Your task to perform on an android device: Open Android settings Image 0: 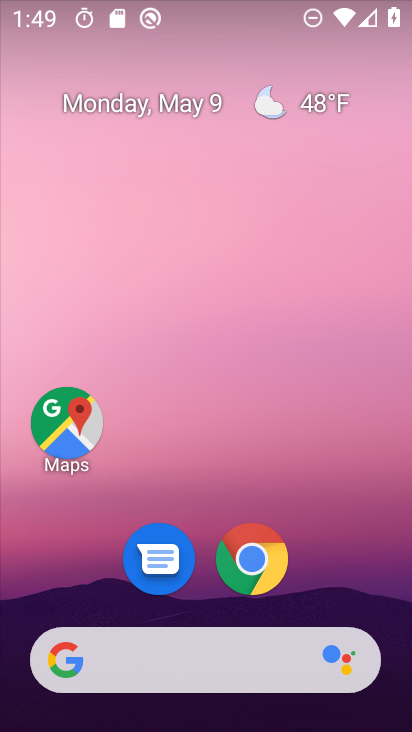
Step 0: drag from (194, 606) to (254, 261)
Your task to perform on an android device: Open Android settings Image 1: 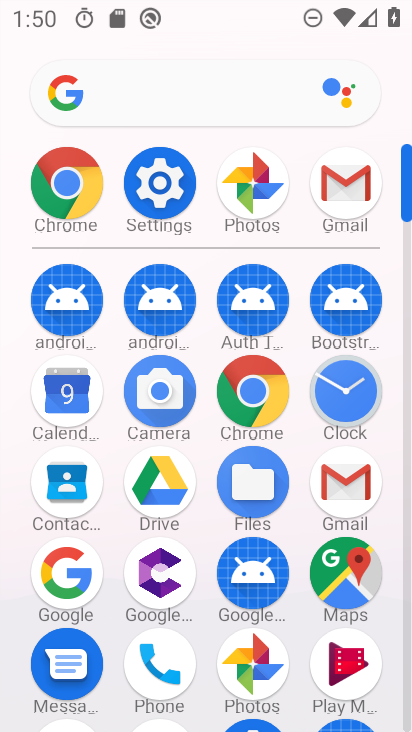
Step 1: drag from (204, 624) to (218, 326)
Your task to perform on an android device: Open Android settings Image 2: 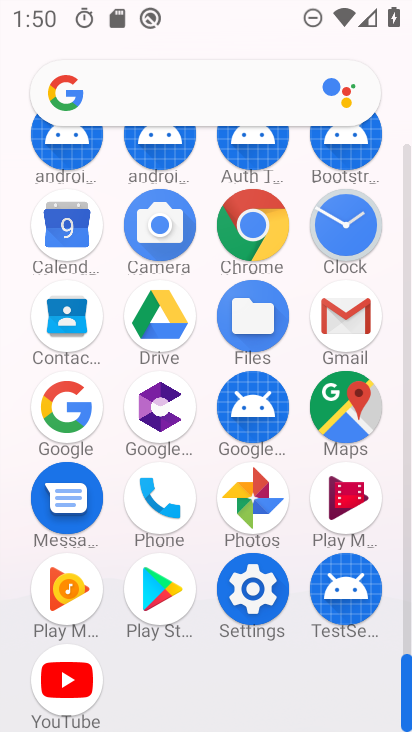
Step 2: click (252, 603)
Your task to perform on an android device: Open Android settings Image 3: 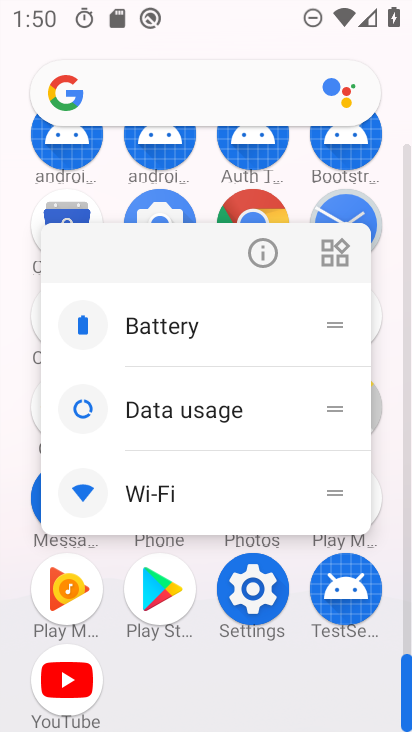
Step 3: click (252, 253)
Your task to perform on an android device: Open Android settings Image 4: 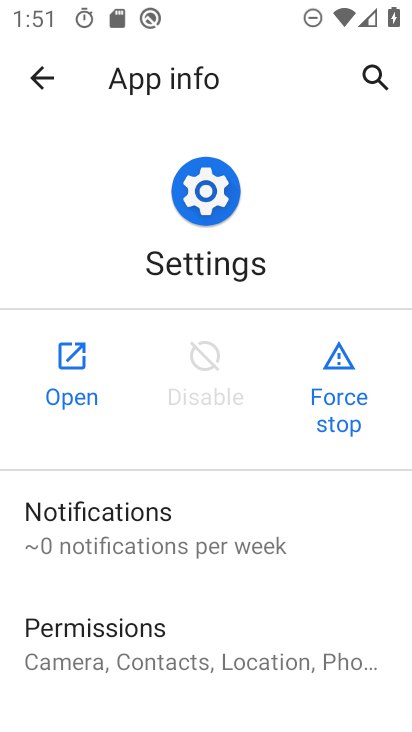
Step 4: click (90, 359)
Your task to perform on an android device: Open Android settings Image 5: 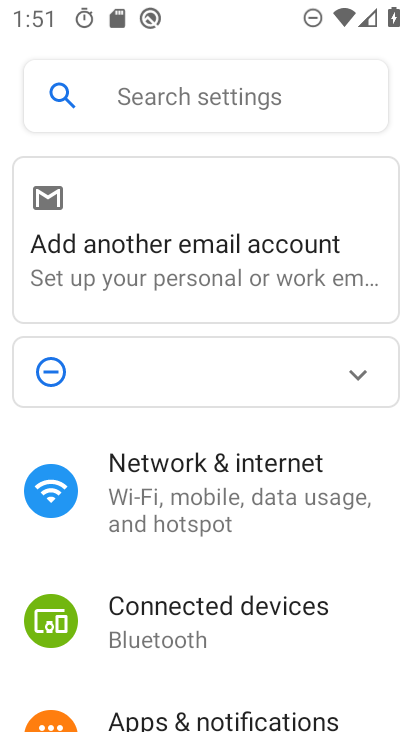
Step 5: drag from (212, 594) to (342, 121)
Your task to perform on an android device: Open Android settings Image 6: 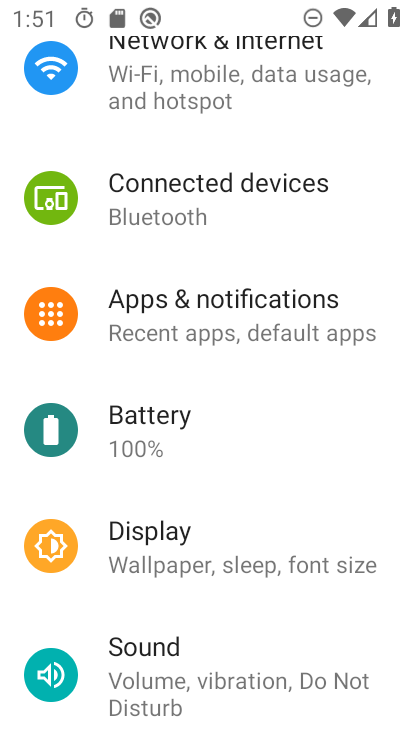
Step 6: drag from (231, 656) to (351, 163)
Your task to perform on an android device: Open Android settings Image 7: 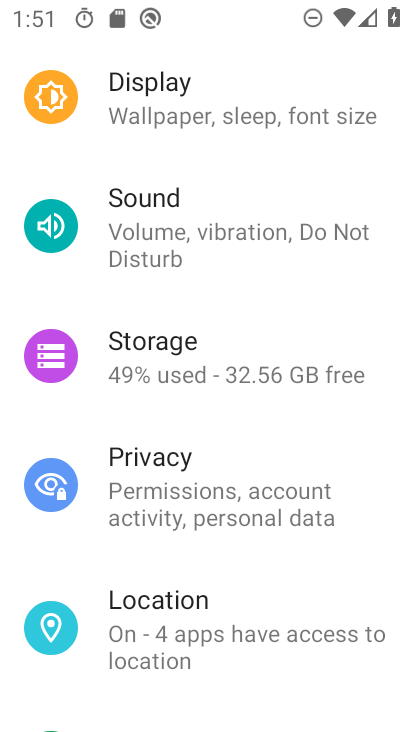
Step 7: drag from (220, 658) to (280, 23)
Your task to perform on an android device: Open Android settings Image 8: 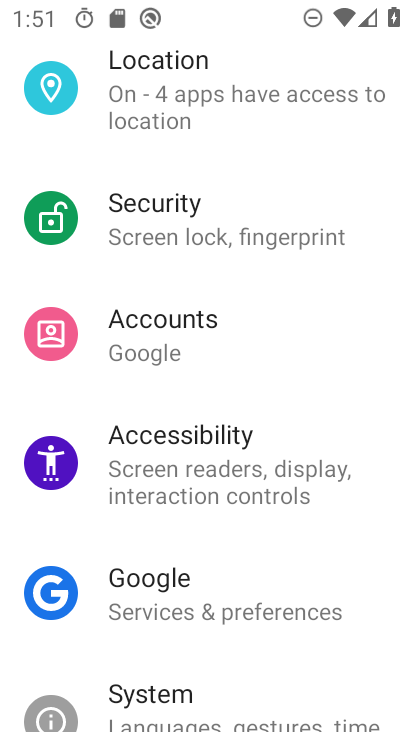
Step 8: drag from (219, 584) to (269, 176)
Your task to perform on an android device: Open Android settings Image 9: 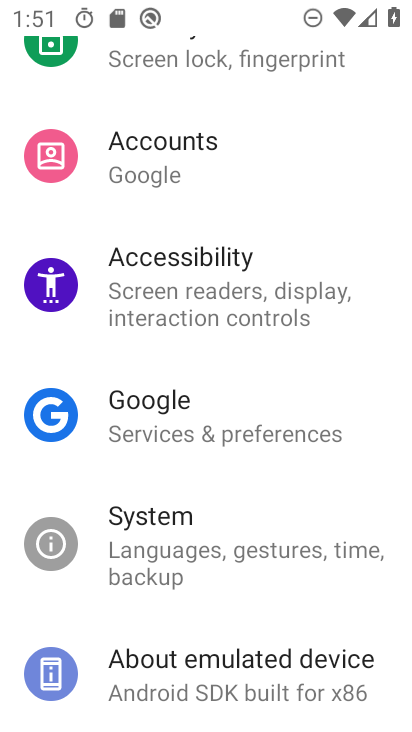
Step 9: click (192, 684)
Your task to perform on an android device: Open Android settings Image 10: 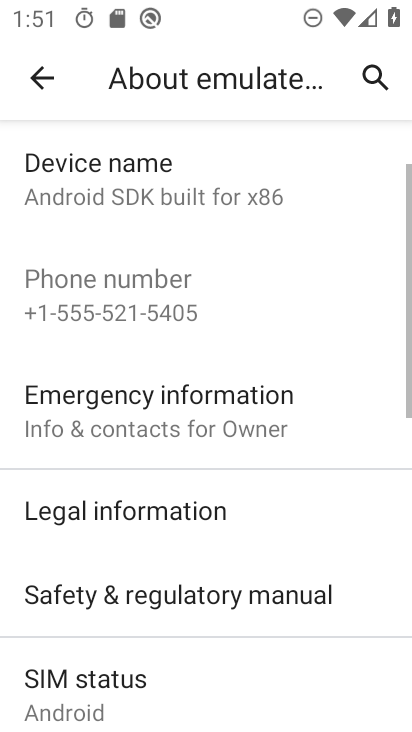
Step 10: drag from (187, 660) to (263, 102)
Your task to perform on an android device: Open Android settings Image 11: 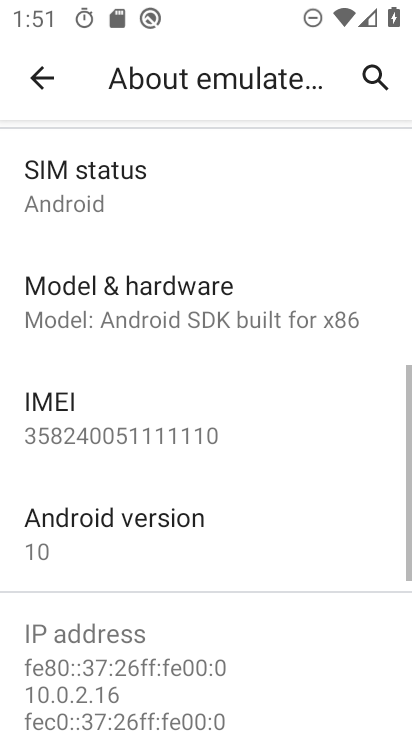
Step 11: click (166, 539)
Your task to perform on an android device: Open Android settings Image 12: 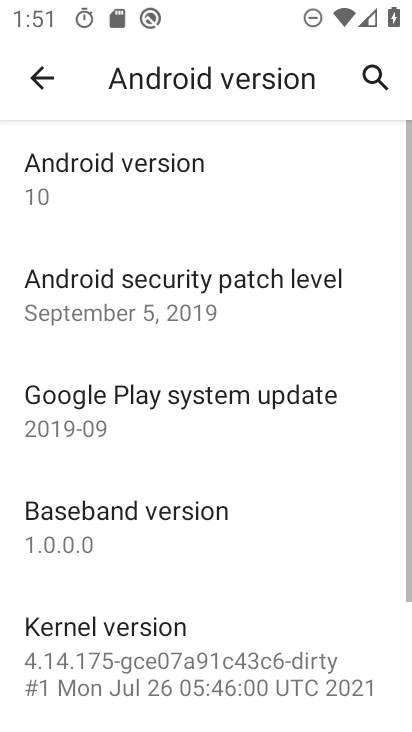
Step 12: task complete